Your task to perform on an android device: Open the Play Movies app and select the watchlist tab. Image 0: 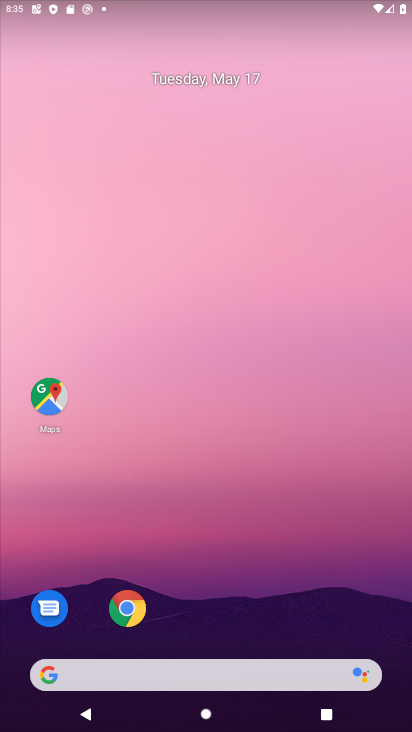
Step 0: drag from (220, 620) to (256, 144)
Your task to perform on an android device: Open the Play Movies app and select the watchlist tab. Image 1: 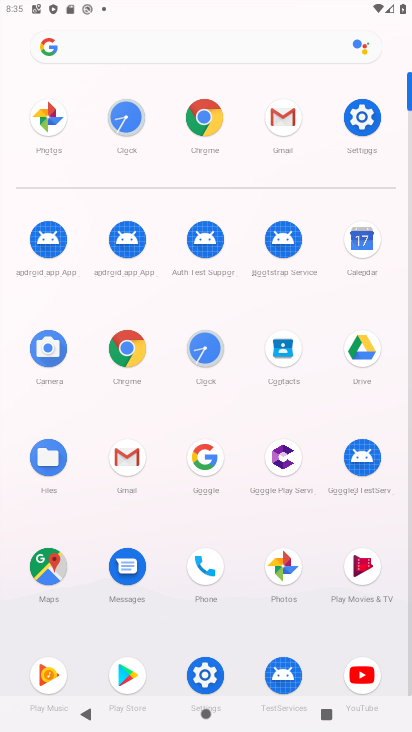
Step 1: click (360, 565)
Your task to perform on an android device: Open the Play Movies app and select the watchlist tab. Image 2: 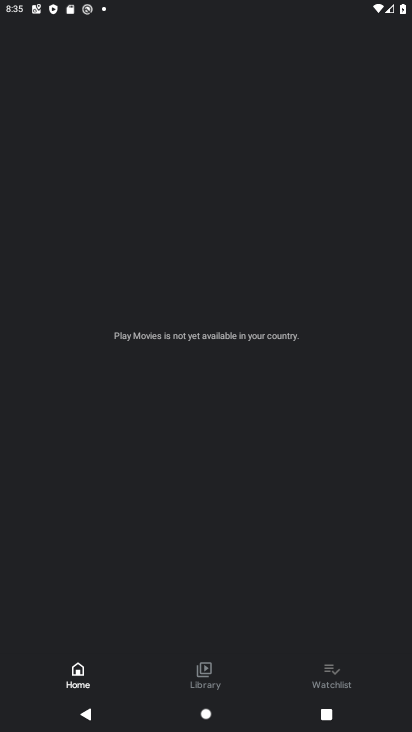
Step 2: click (336, 673)
Your task to perform on an android device: Open the Play Movies app and select the watchlist tab. Image 3: 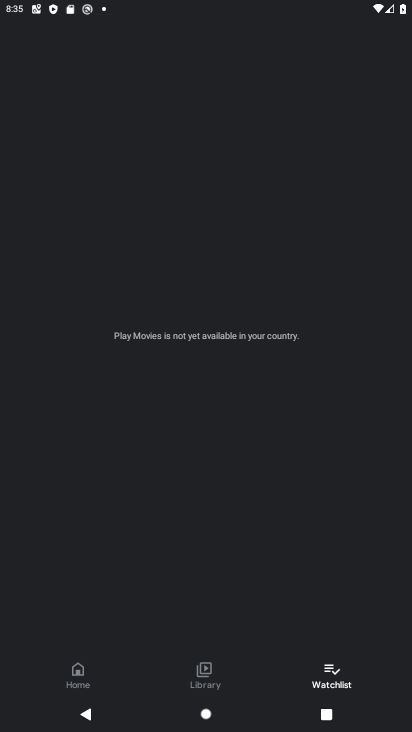
Step 3: task complete